Your task to perform on an android device: Go to internet settings Image 0: 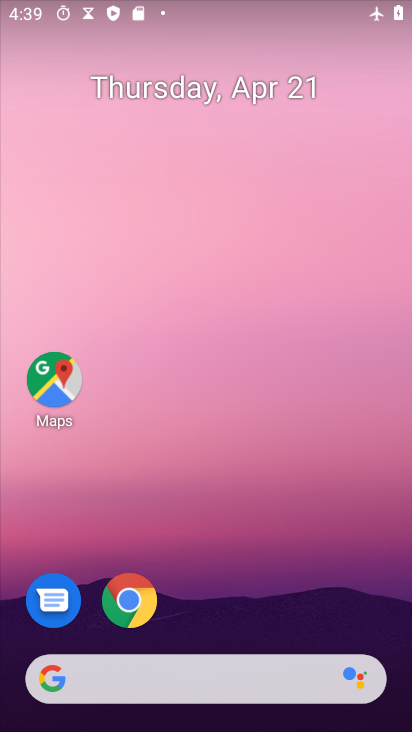
Step 0: drag from (240, 619) to (291, 103)
Your task to perform on an android device: Go to internet settings Image 1: 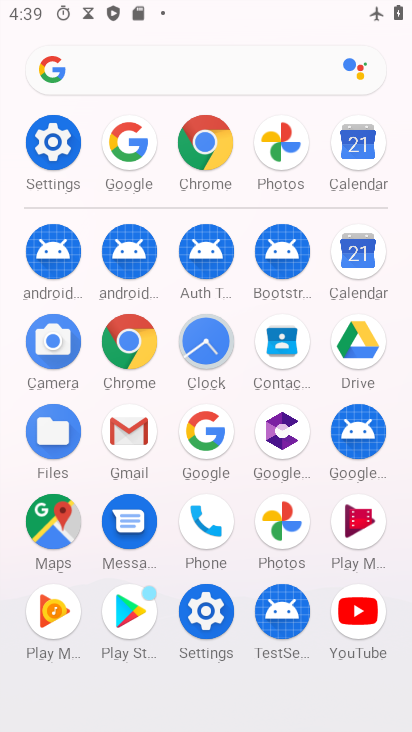
Step 1: click (58, 141)
Your task to perform on an android device: Go to internet settings Image 2: 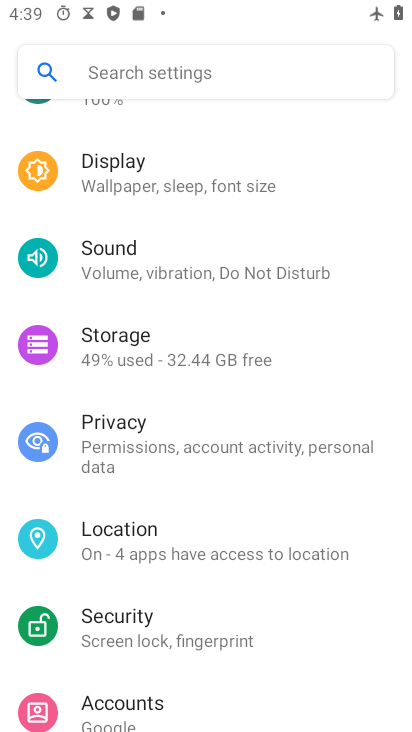
Step 2: drag from (161, 233) to (169, 363)
Your task to perform on an android device: Go to internet settings Image 3: 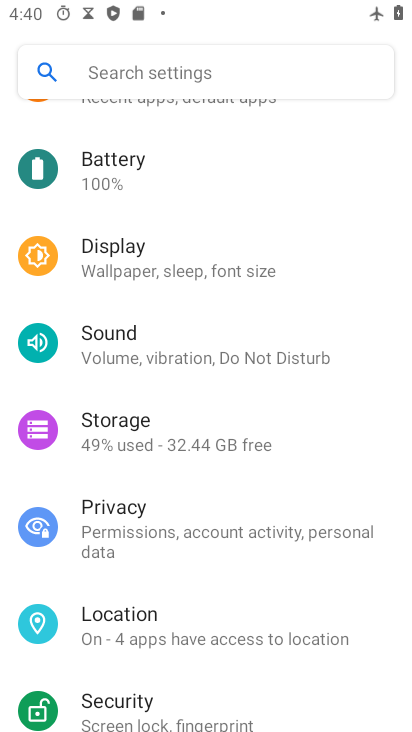
Step 3: drag from (192, 210) to (204, 361)
Your task to perform on an android device: Go to internet settings Image 4: 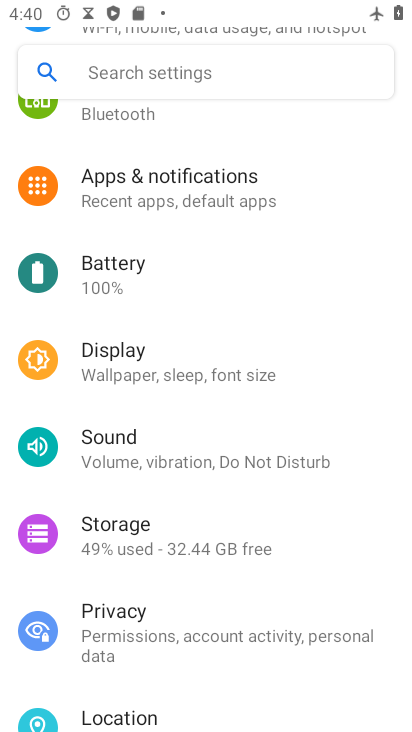
Step 4: drag from (204, 255) to (210, 375)
Your task to perform on an android device: Go to internet settings Image 5: 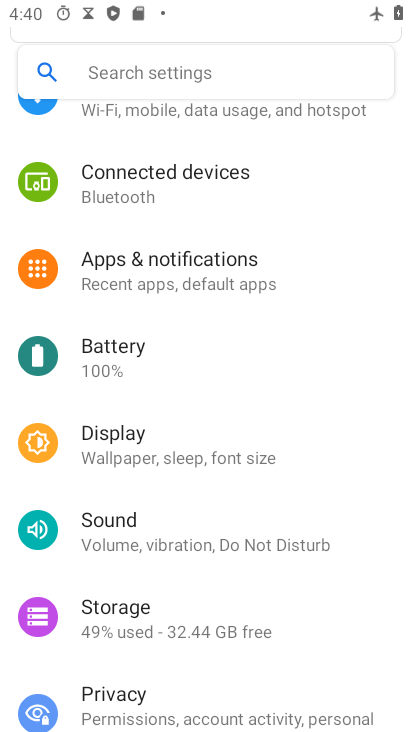
Step 5: drag from (193, 213) to (195, 382)
Your task to perform on an android device: Go to internet settings Image 6: 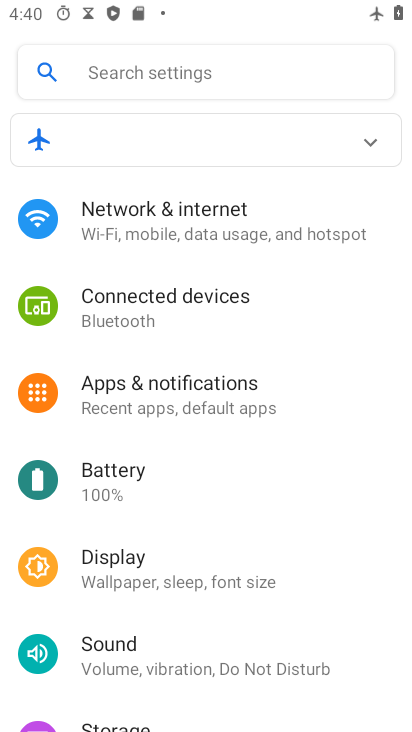
Step 6: click (160, 224)
Your task to perform on an android device: Go to internet settings Image 7: 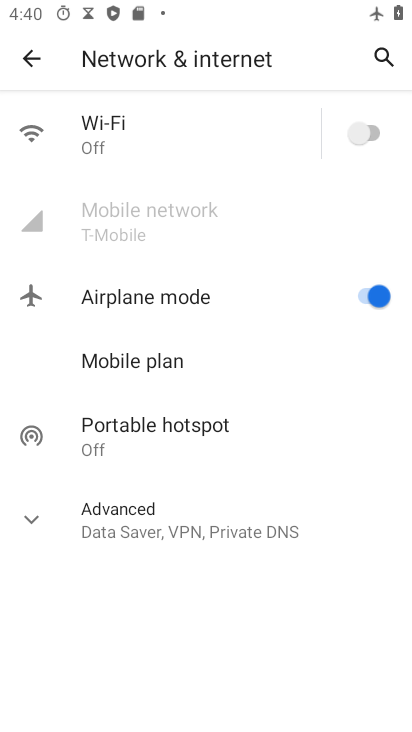
Step 7: task complete